Your task to perform on an android device: turn off location Image 0: 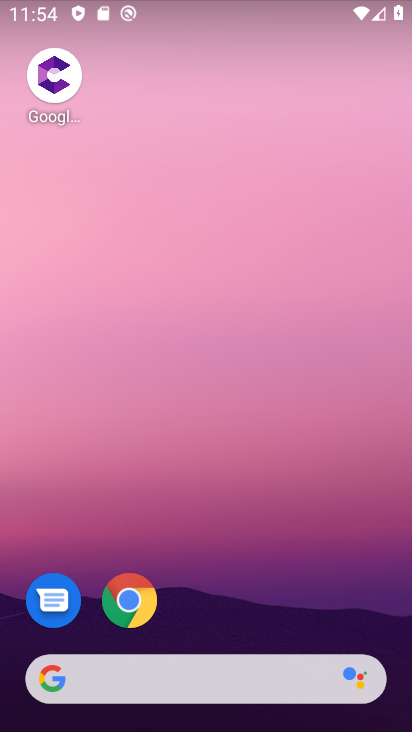
Step 0: drag from (388, 611) to (356, 86)
Your task to perform on an android device: turn off location Image 1: 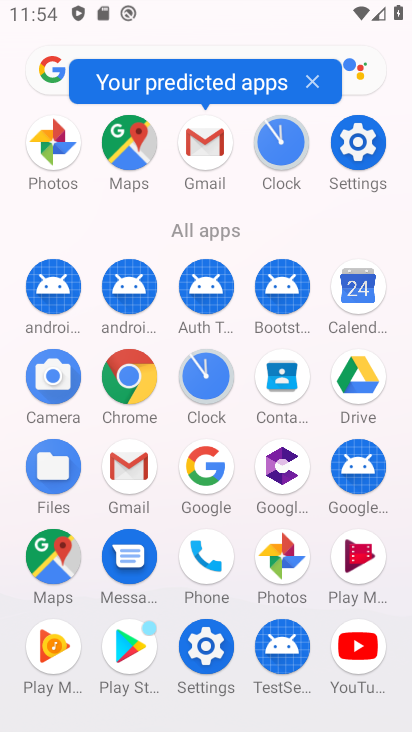
Step 1: click (218, 658)
Your task to perform on an android device: turn off location Image 2: 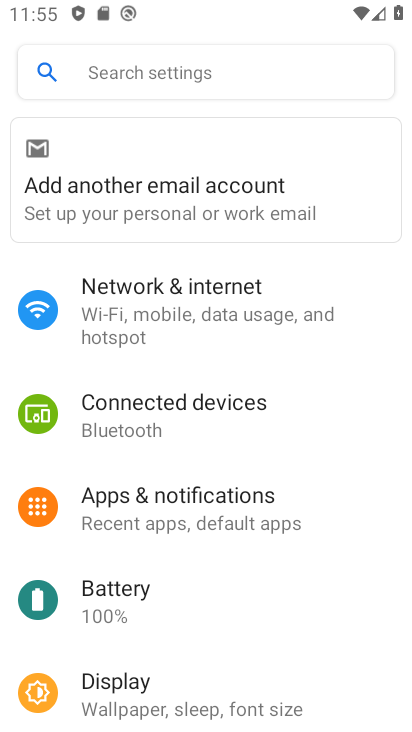
Step 2: drag from (193, 623) to (180, 231)
Your task to perform on an android device: turn off location Image 3: 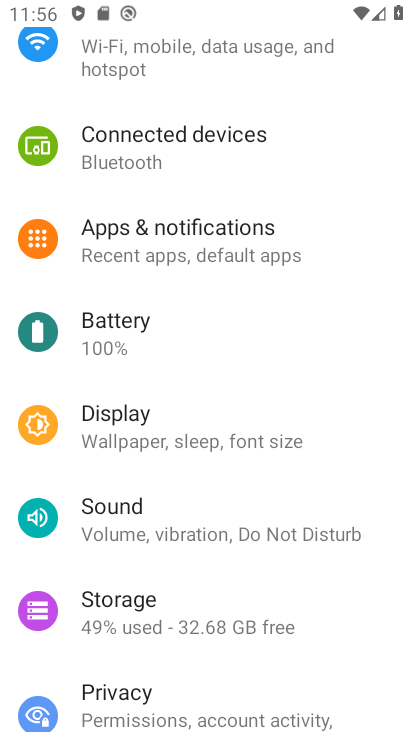
Step 3: drag from (250, 460) to (233, 18)
Your task to perform on an android device: turn off location Image 4: 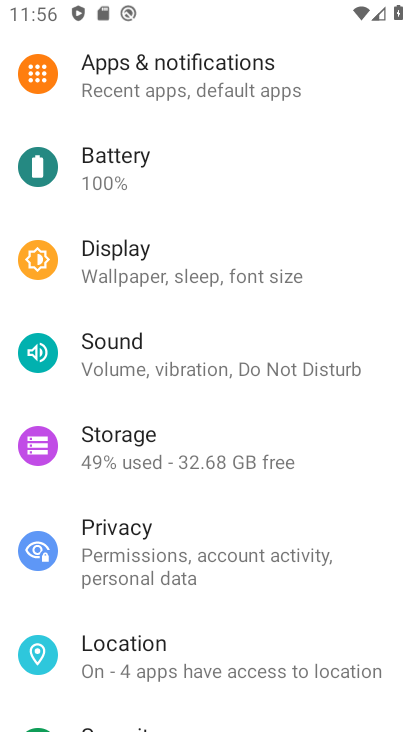
Step 4: drag from (223, 552) to (221, 314)
Your task to perform on an android device: turn off location Image 5: 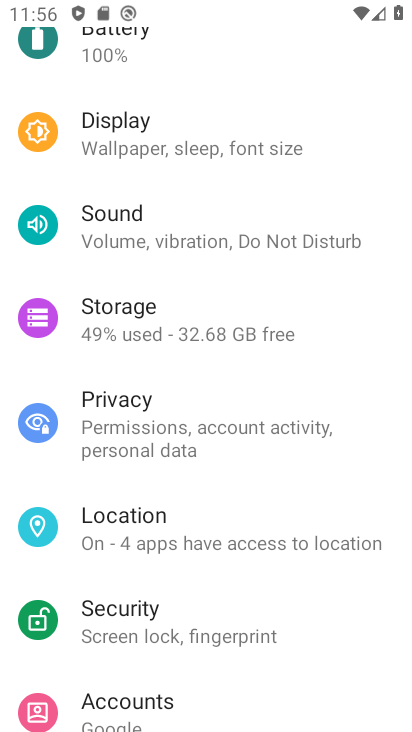
Step 5: click (213, 531)
Your task to perform on an android device: turn off location Image 6: 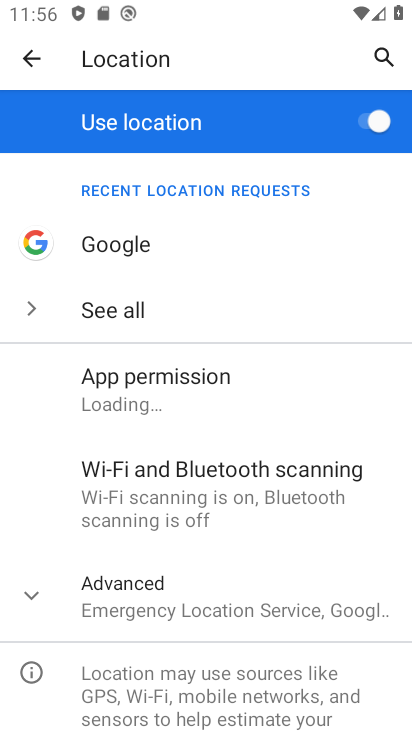
Step 6: task complete